Your task to perform on an android device: check data usage Image 0: 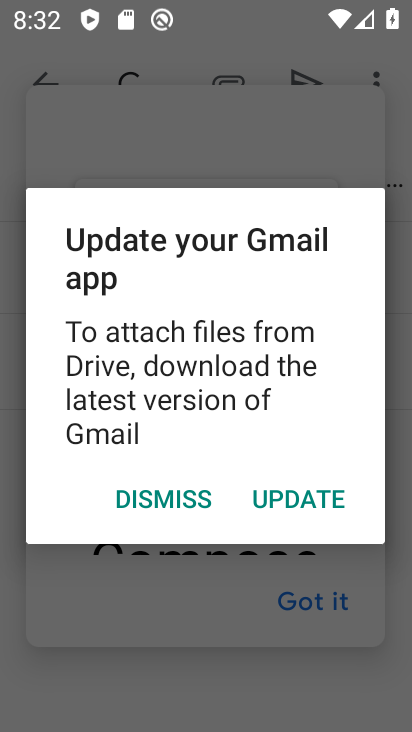
Step 0: press home button
Your task to perform on an android device: check data usage Image 1: 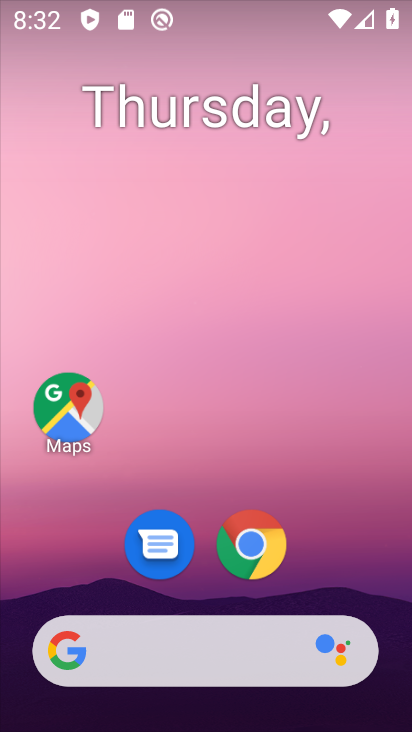
Step 1: drag from (190, 716) to (209, 0)
Your task to perform on an android device: check data usage Image 2: 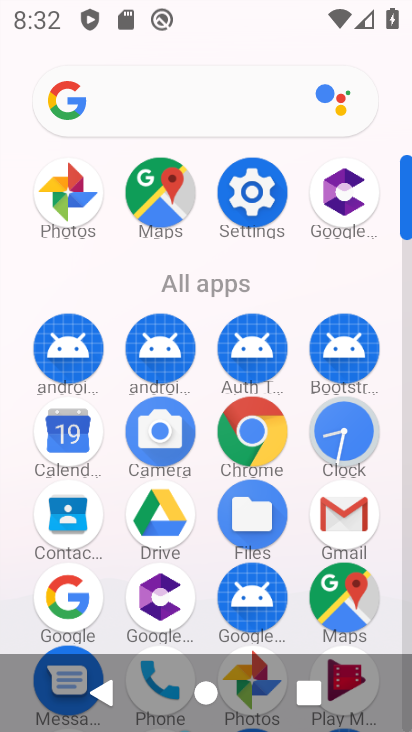
Step 2: click (272, 193)
Your task to perform on an android device: check data usage Image 3: 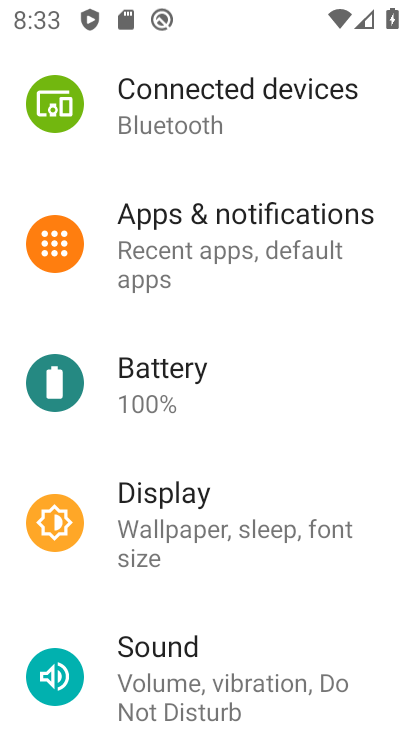
Step 3: drag from (274, 528) to (196, 42)
Your task to perform on an android device: check data usage Image 4: 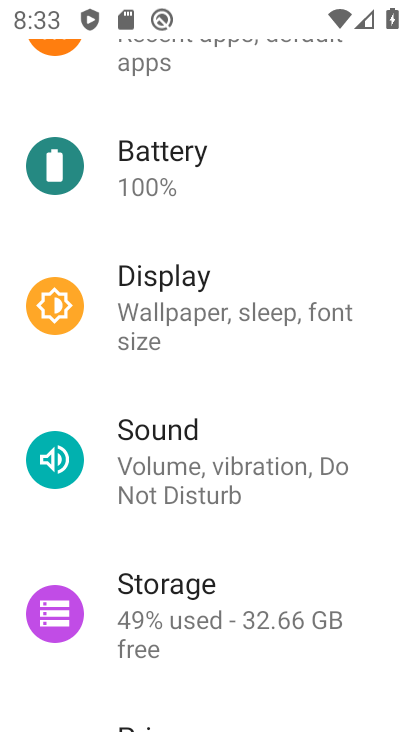
Step 4: click (193, 601)
Your task to perform on an android device: check data usage Image 5: 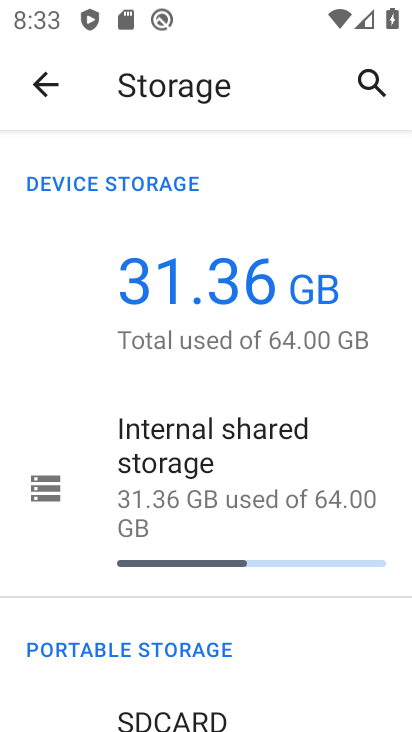
Step 5: press home button
Your task to perform on an android device: check data usage Image 6: 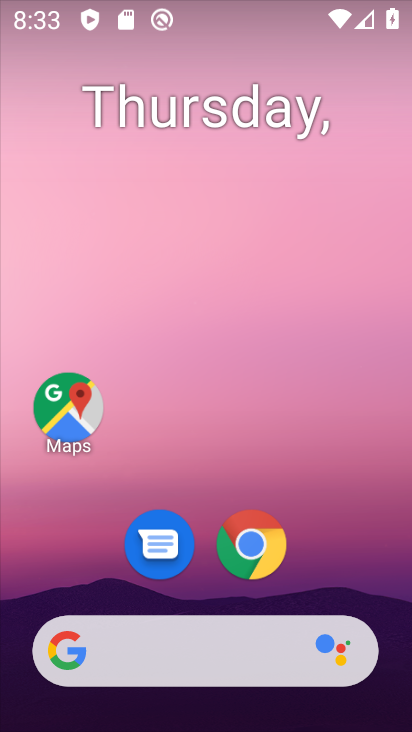
Step 6: drag from (211, 611) to (262, 25)
Your task to perform on an android device: check data usage Image 7: 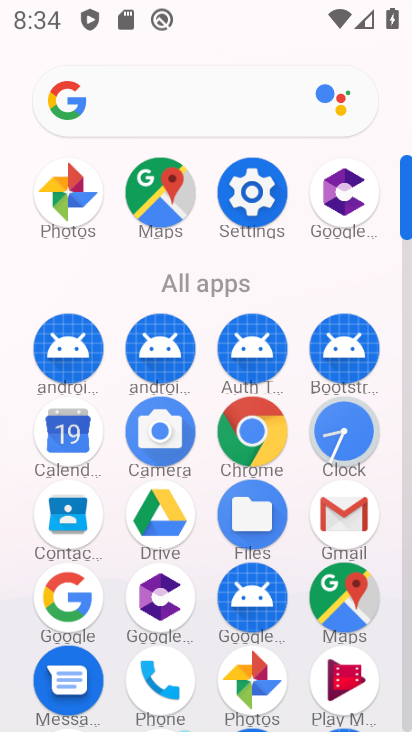
Step 7: click (233, 184)
Your task to perform on an android device: check data usage Image 8: 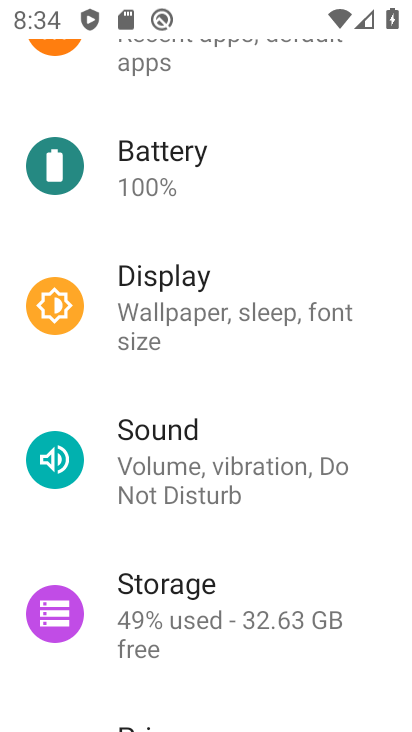
Step 8: drag from (353, 185) to (292, 701)
Your task to perform on an android device: check data usage Image 9: 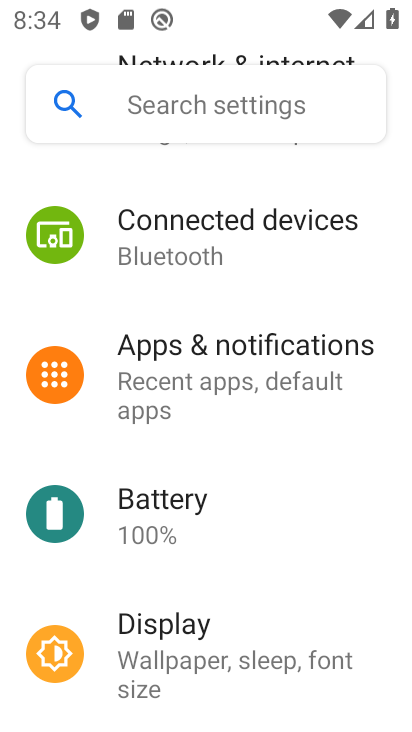
Step 9: drag from (302, 248) to (304, 691)
Your task to perform on an android device: check data usage Image 10: 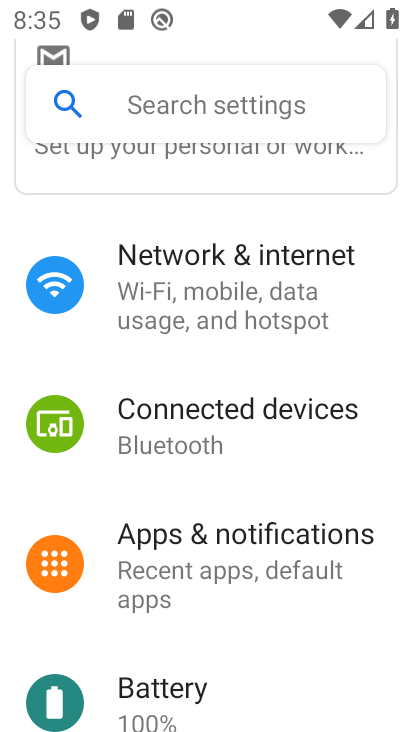
Step 10: click (227, 279)
Your task to perform on an android device: check data usage Image 11: 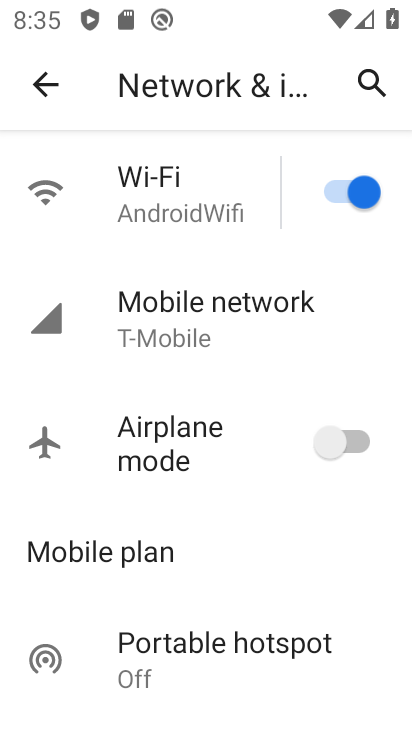
Step 11: click (224, 328)
Your task to perform on an android device: check data usage Image 12: 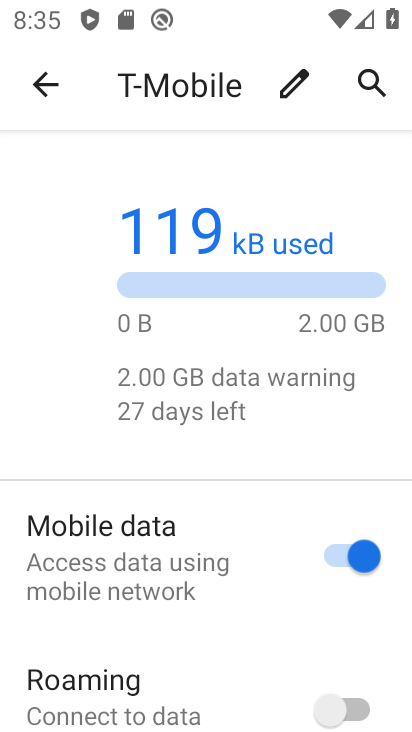
Step 12: task complete